Your task to perform on an android device: Go to display settings Image 0: 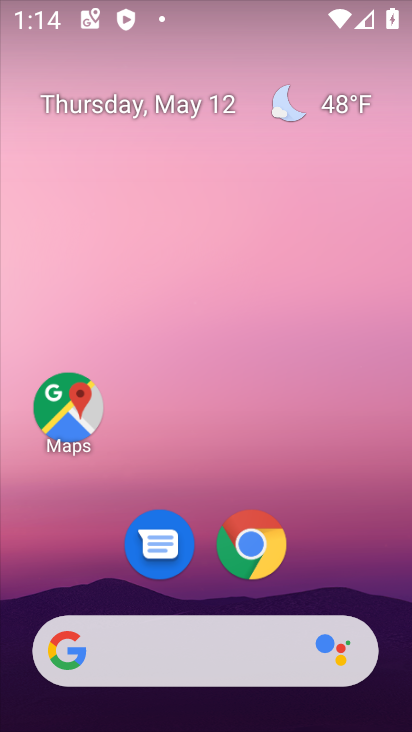
Step 0: drag from (346, 500) to (220, 0)
Your task to perform on an android device: Go to display settings Image 1: 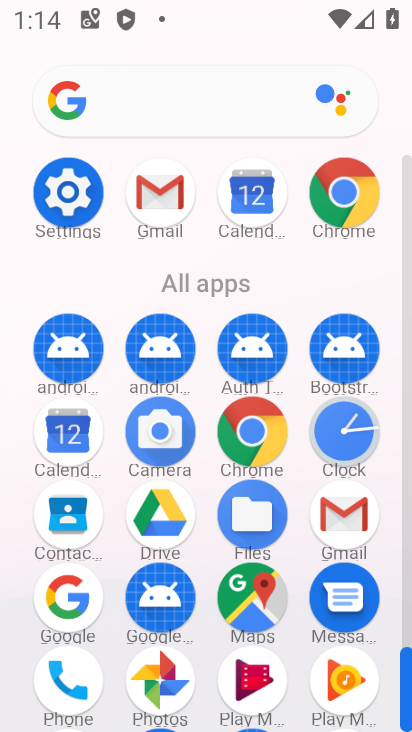
Step 1: drag from (12, 506) to (12, 263)
Your task to perform on an android device: Go to display settings Image 2: 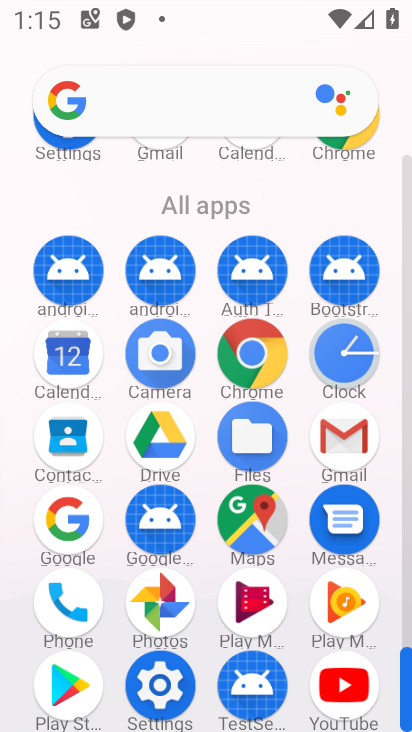
Step 2: click (156, 682)
Your task to perform on an android device: Go to display settings Image 3: 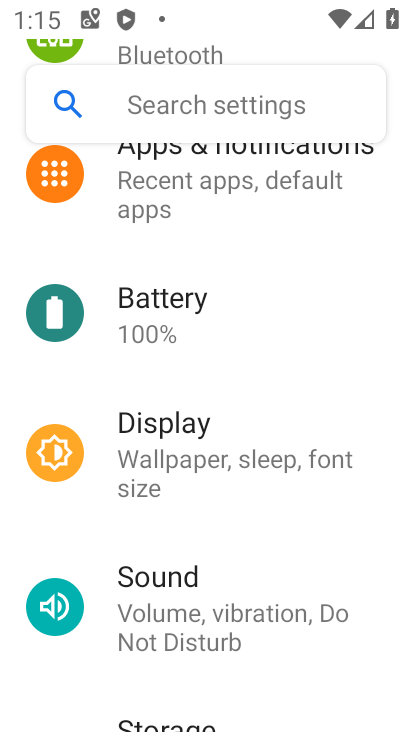
Step 3: drag from (272, 513) to (279, 179)
Your task to perform on an android device: Go to display settings Image 4: 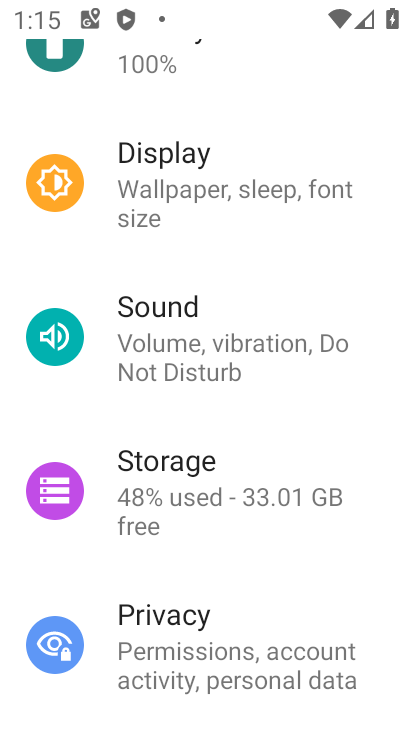
Step 4: drag from (330, 592) to (314, 151)
Your task to perform on an android device: Go to display settings Image 5: 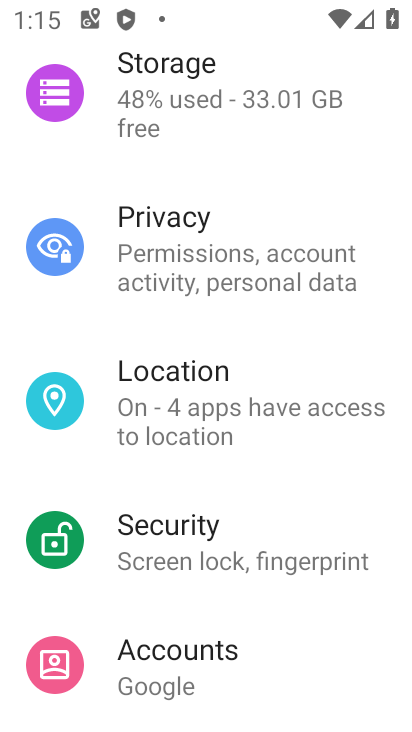
Step 5: drag from (308, 478) to (268, 165)
Your task to perform on an android device: Go to display settings Image 6: 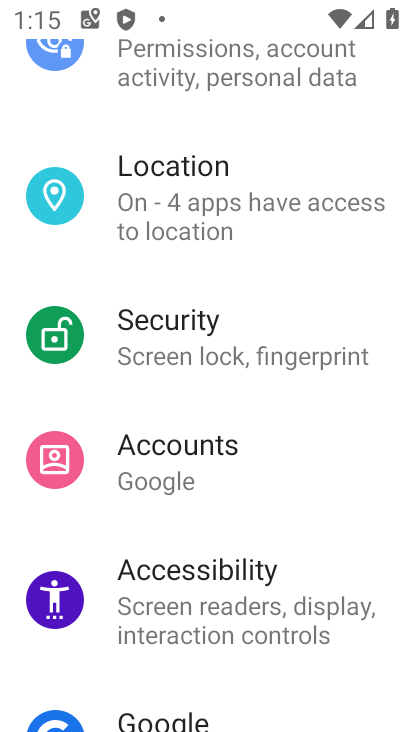
Step 6: drag from (250, 183) to (256, 575)
Your task to perform on an android device: Go to display settings Image 7: 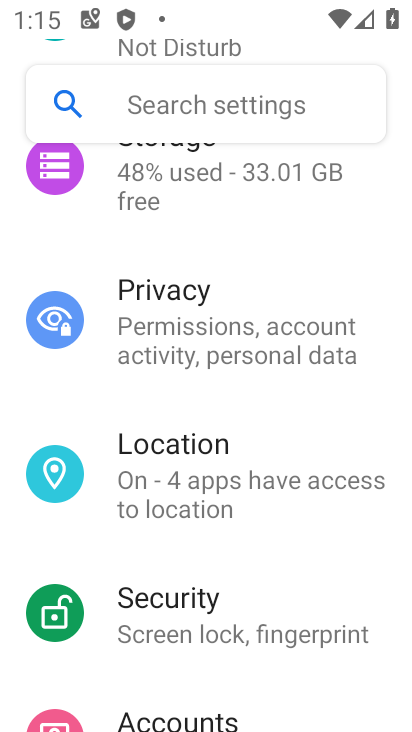
Step 7: drag from (259, 301) to (247, 628)
Your task to perform on an android device: Go to display settings Image 8: 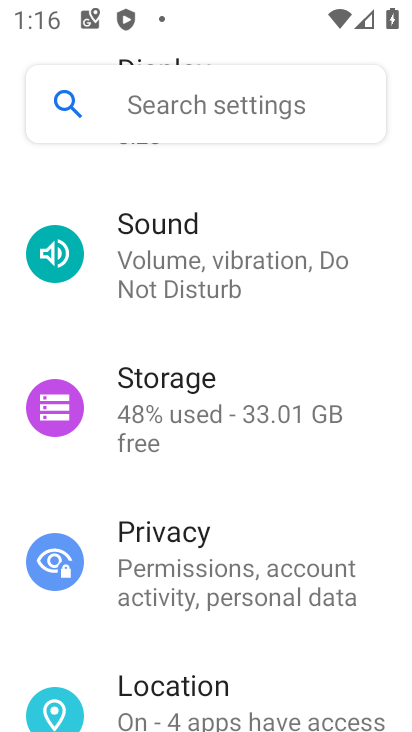
Step 8: drag from (278, 493) to (266, 636)
Your task to perform on an android device: Go to display settings Image 9: 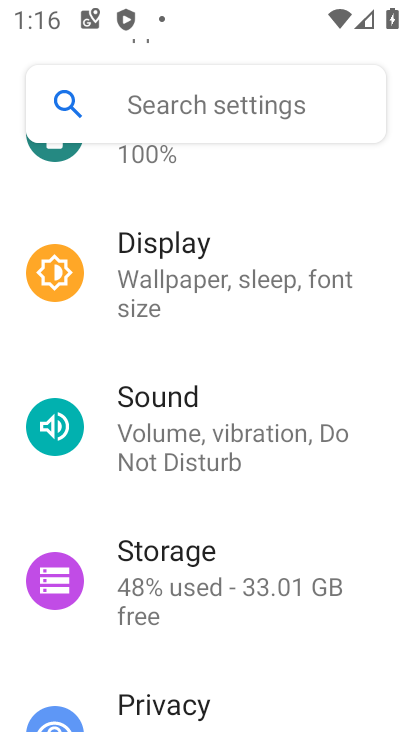
Step 9: click (204, 284)
Your task to perform on an android device: Go to display settings Image 10: 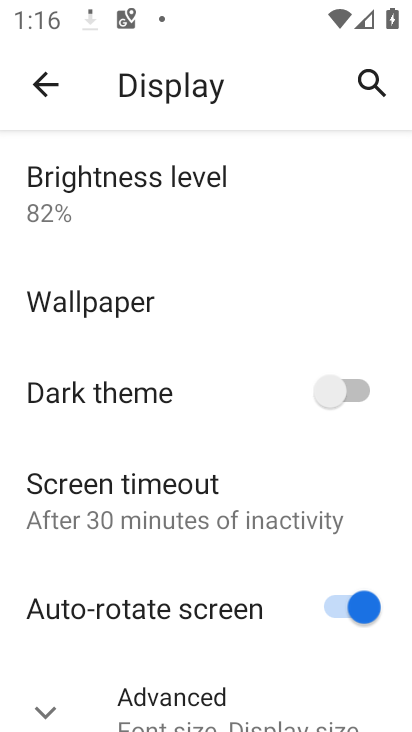
Step 10: drag from (209, 522) to (237, 186)
Your task to perform on an android device: Go to display settings Image 11: 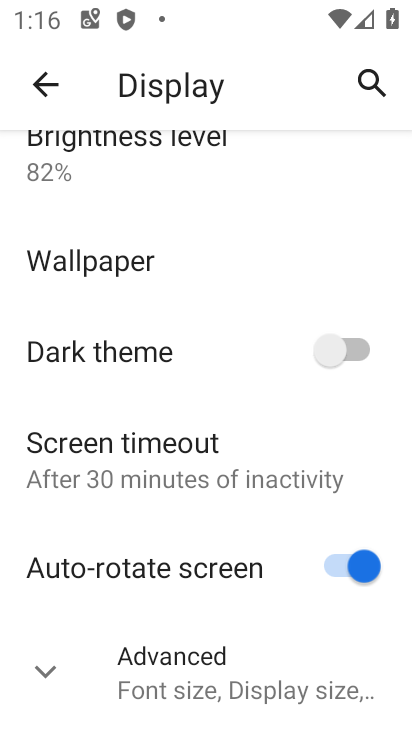
Step 11: click (38, 666)
Your task to perform on an android device: Go to display settings Image 12: 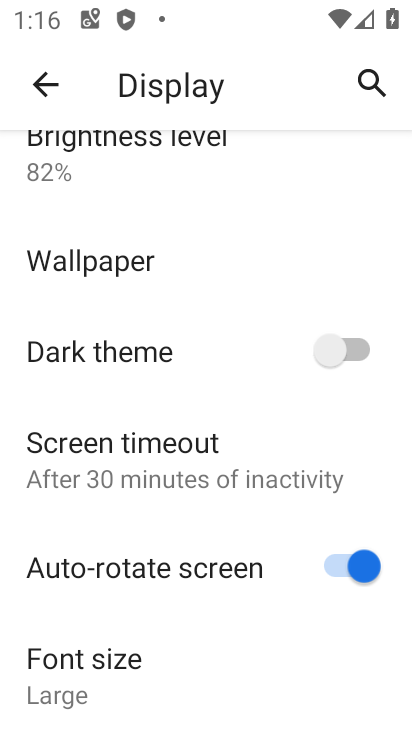
Step 12: task complete